Your task to perform on an android device: Open notification settings Image 0: 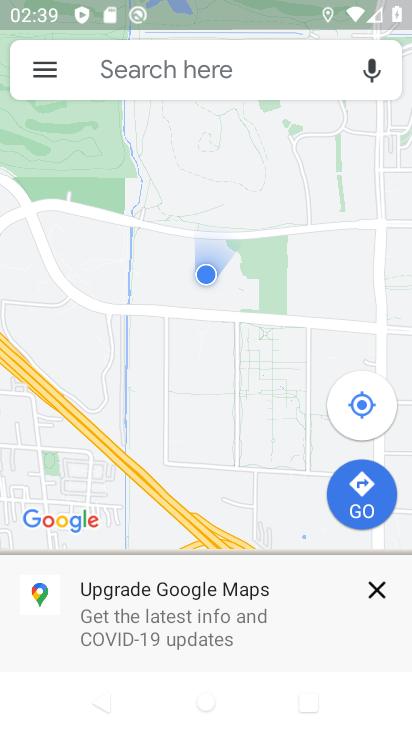
Step 0: click (374, 596)
Your task to perform on an android device: Open notification settings Image 1: 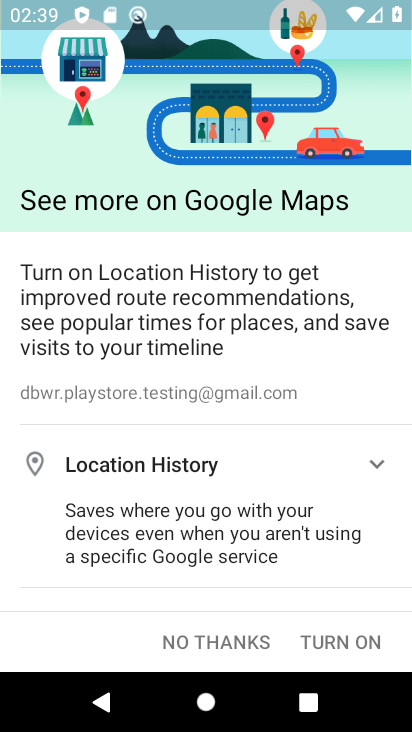
Step 1: press home button
Your task to perform on an android device: Open notification settings Image 2: 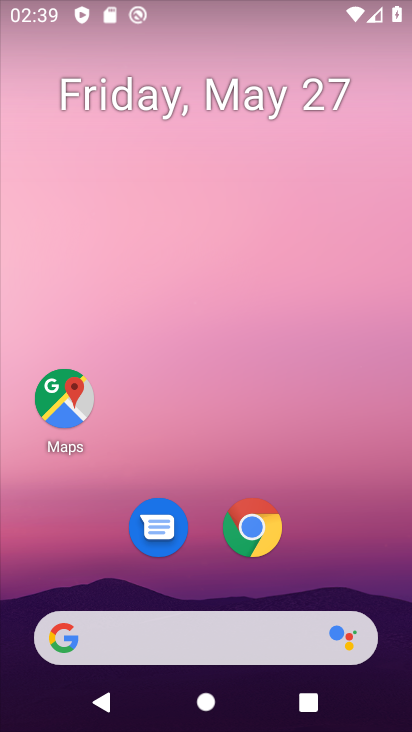
Step 2: drag from (211, 563) to (215, 75)
Your task to perform on an android device: Open notification settings Image 3: 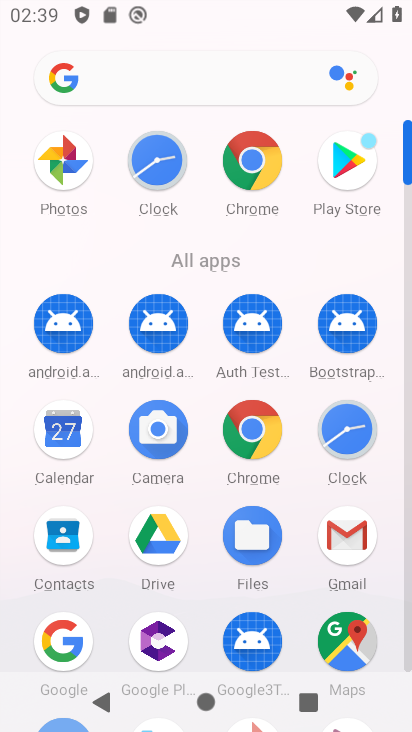
Step 3: drag from (271, 555) to (354, 181)
Your task to perform on an android device: Open notification settings Image 4: 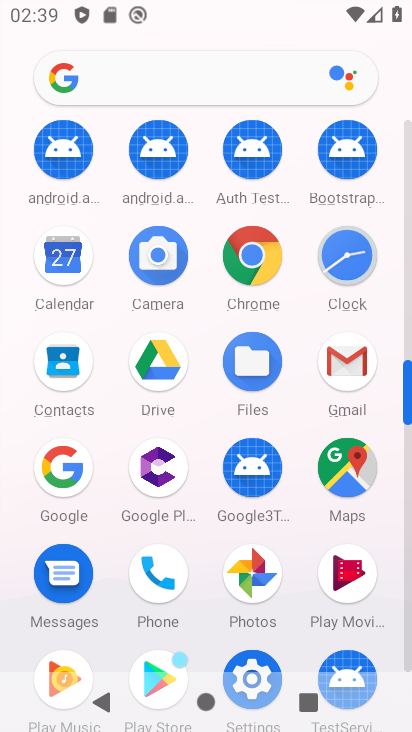
Step 4: click (240, 669)
Your task to perform on an android device: Open notification settings Image 5: 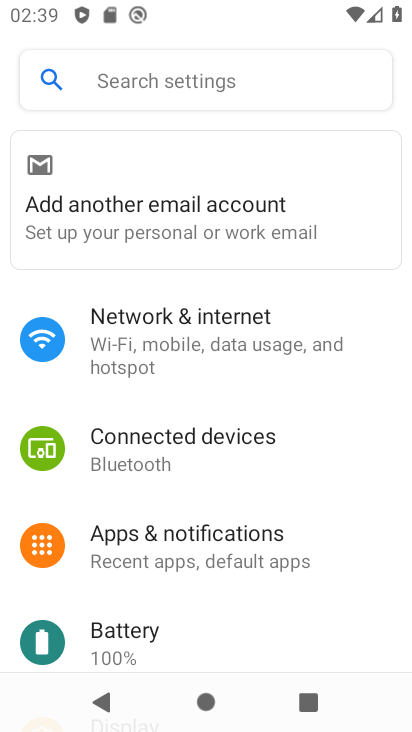
Step 5: drag from (217, 615) to (239, 460)
Your task to perform on an android device: Open notification settings Image 6: 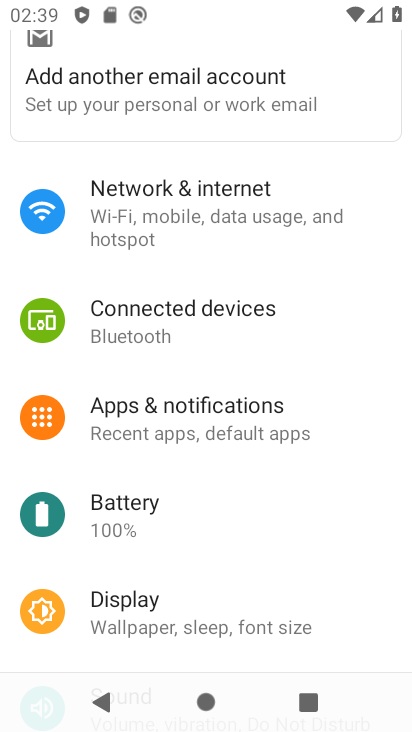
Step 6: click (210, 426)
Your task to perform on an android device: Open notification settings Image 7: 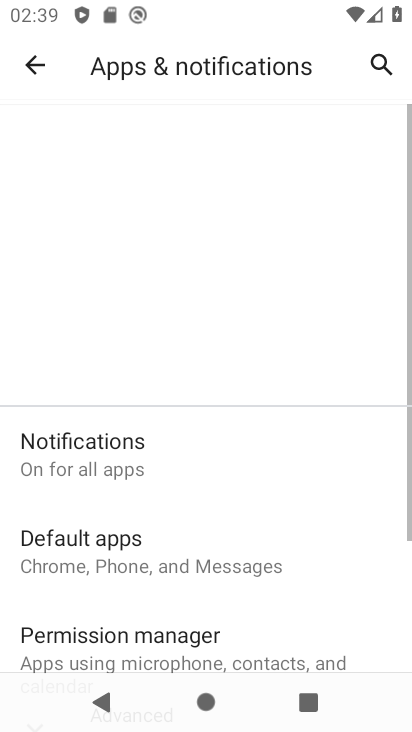
Step 7: drag from (187, 614) to (236, 380)
Your task to perform on an android device: Open notification settings Image 8: 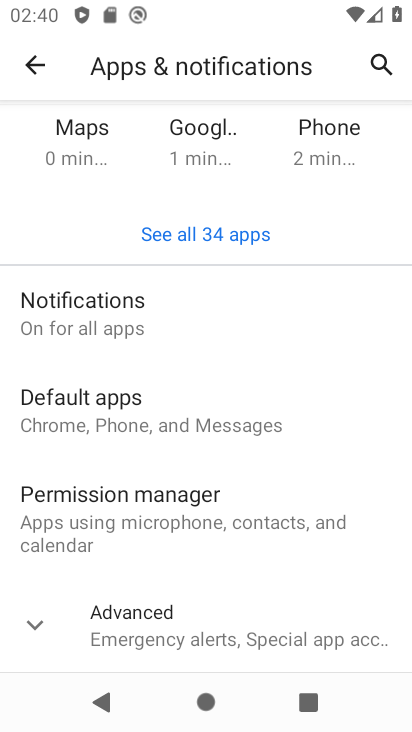
Step 8: click (105, 300)
Your task to perform on an android device: Open notification settings Image 9: 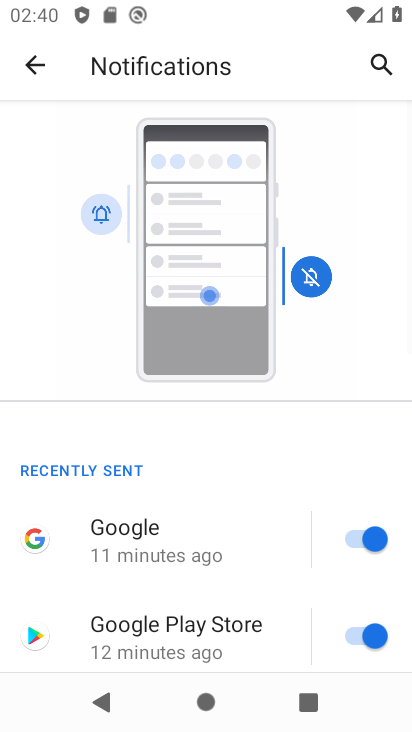
Step 9: task complete